Your task to perform on an android device: open a bookmark in the chrome app Image 0: 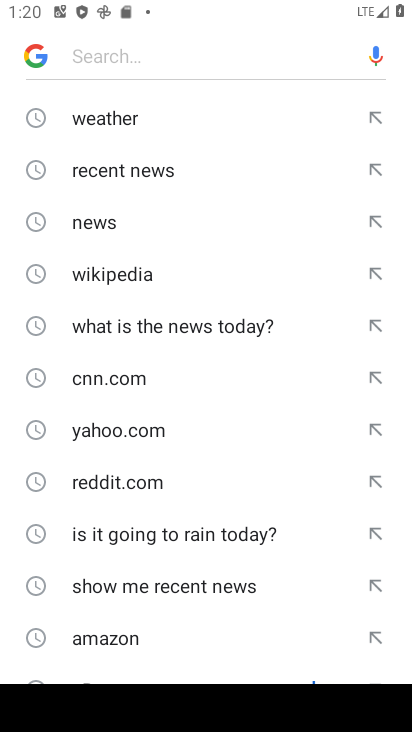
Step 0: press home button
Your task to perform on an android device: open a bookmark in the chrome app Image 1: 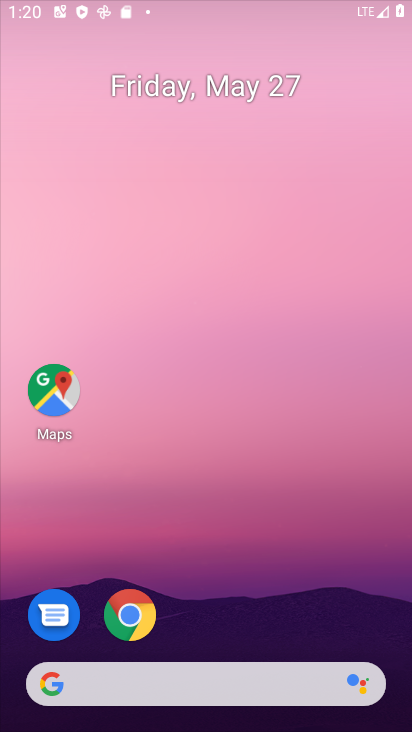
Step 1: drag from (304, 646) to (246, 0)
Your task to perform on an android device: open a bookmark in the chrome app Image 2: 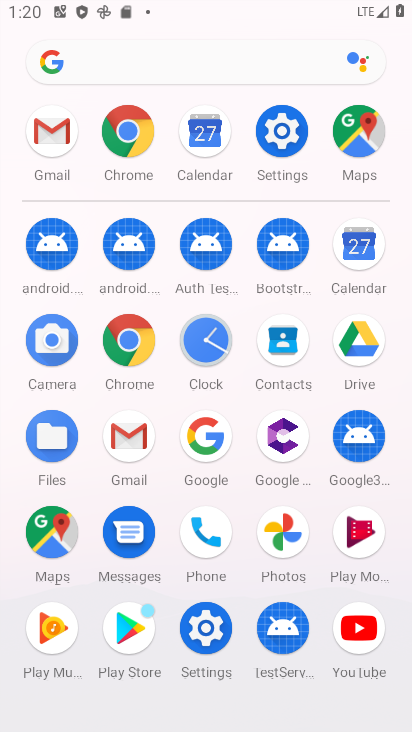
Step 2: click (126, 337)
Your task to perform on an android device: open a bookmark in the chrome app Image 3: 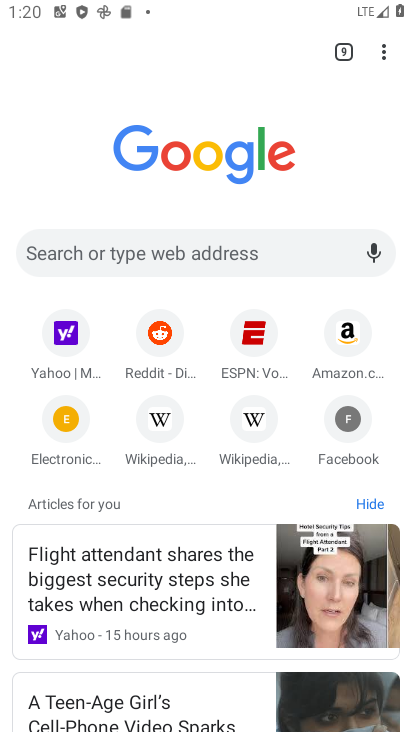
Step 3: task complete